Your task to perform on an android device: Search for flights from Sydney to Helsinki Image 0: 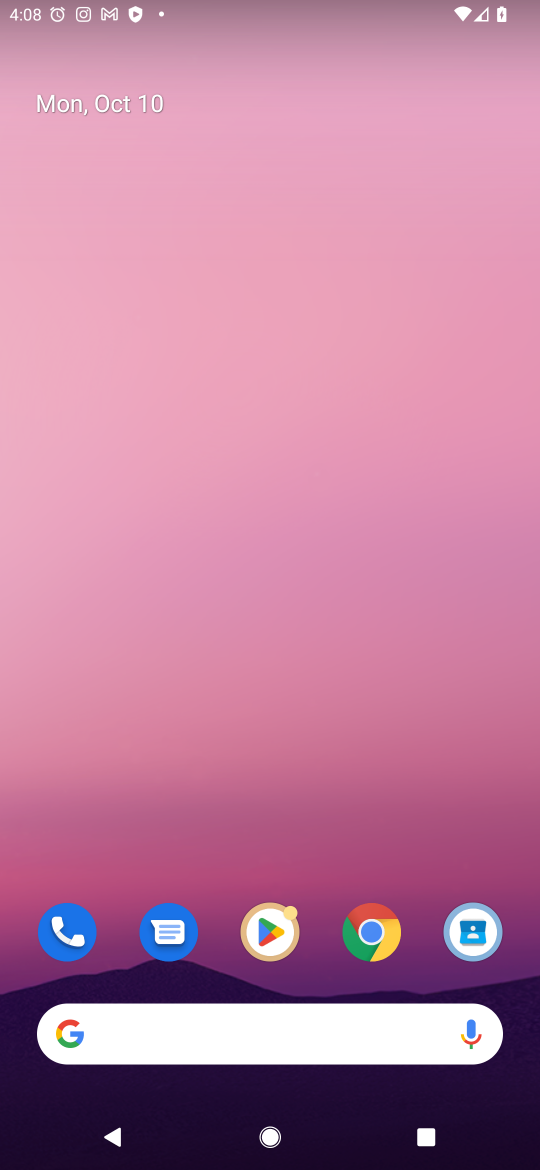
Step 0: press home button
Your task to perform on an android device: Search for flights from Sydney to Helsinki Image 1: 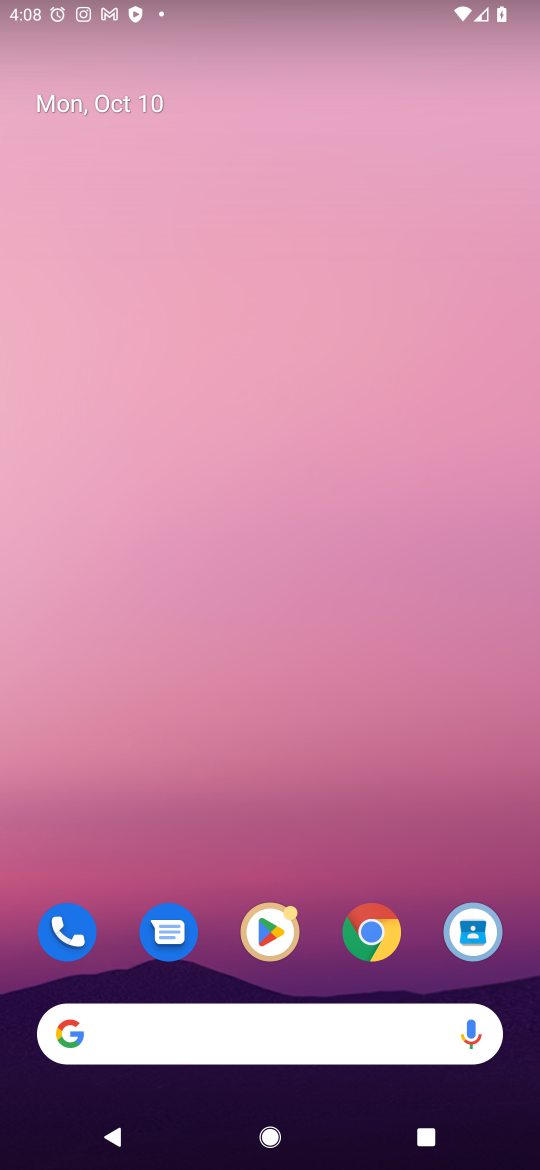
Step 1: click (354, 1034)
Your task to perform on an android device: Search for flights from Sydney to Helsinki Image 2: 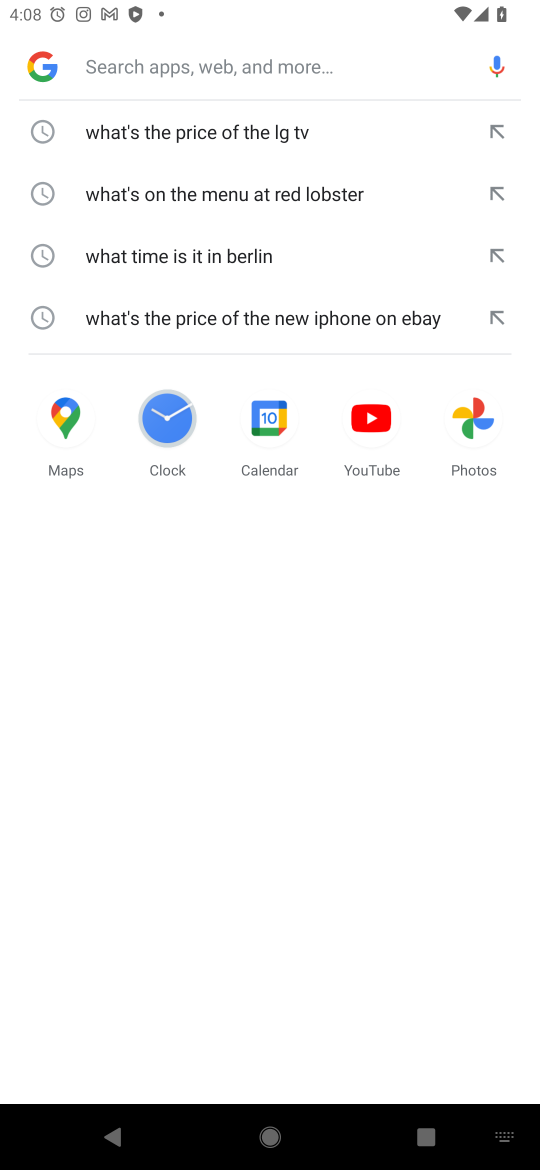
Step 2: type " flights from Sydney to Helsinki"
Your task to perform on an android device: Search for flights from Sydney to Helsinki Image 3: 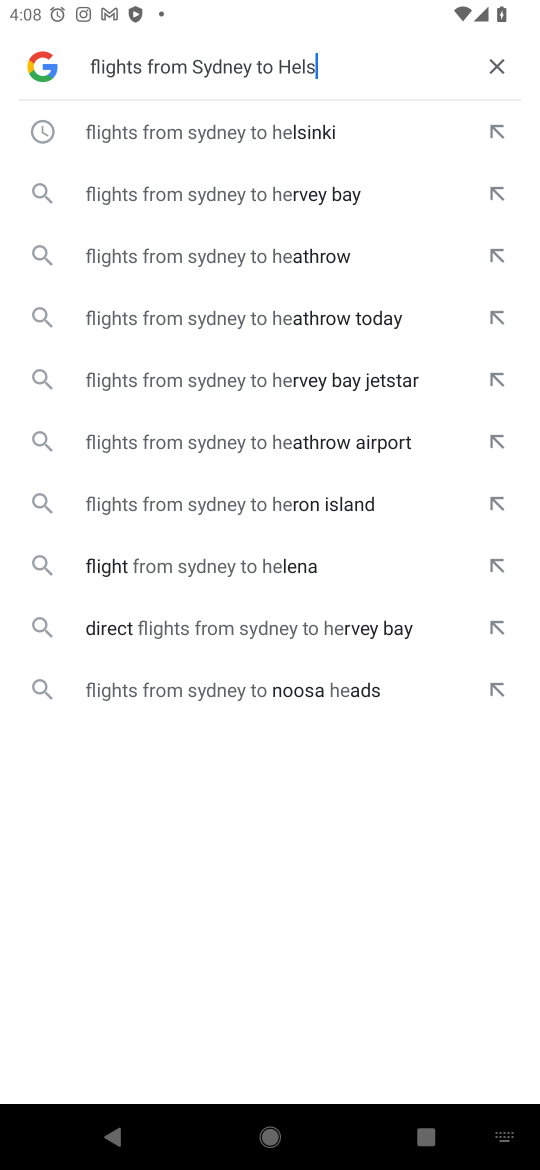
Step 3: press enter
Your task to perform on an android device: Search for flights from Sydney to Helsinki Image 4: 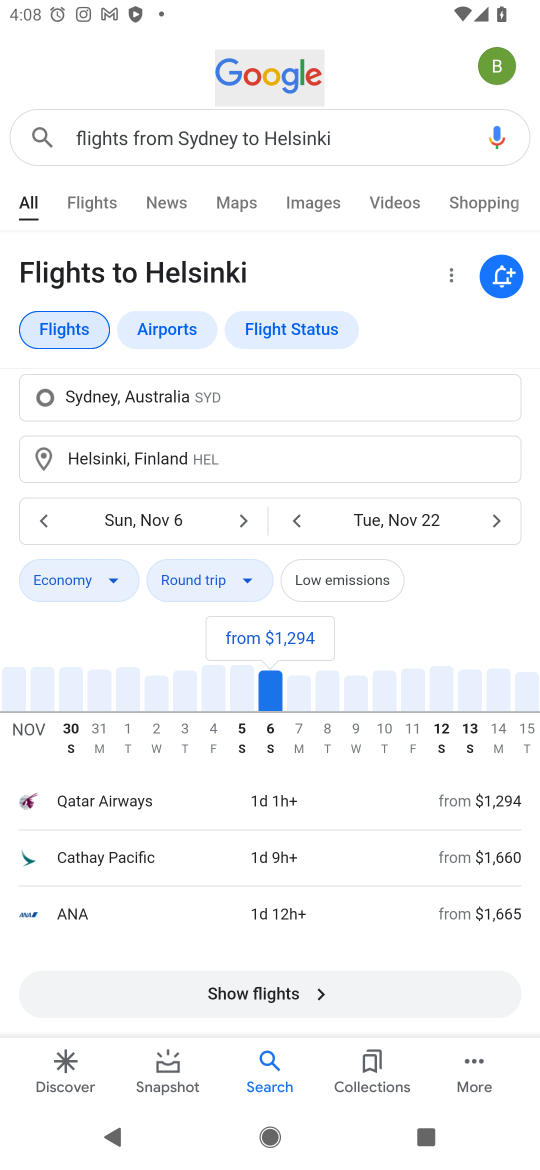
Step 4: click (274, 996)
Your task to perform on an android device: Search for flights from Sydney to Helsinki Image 5: 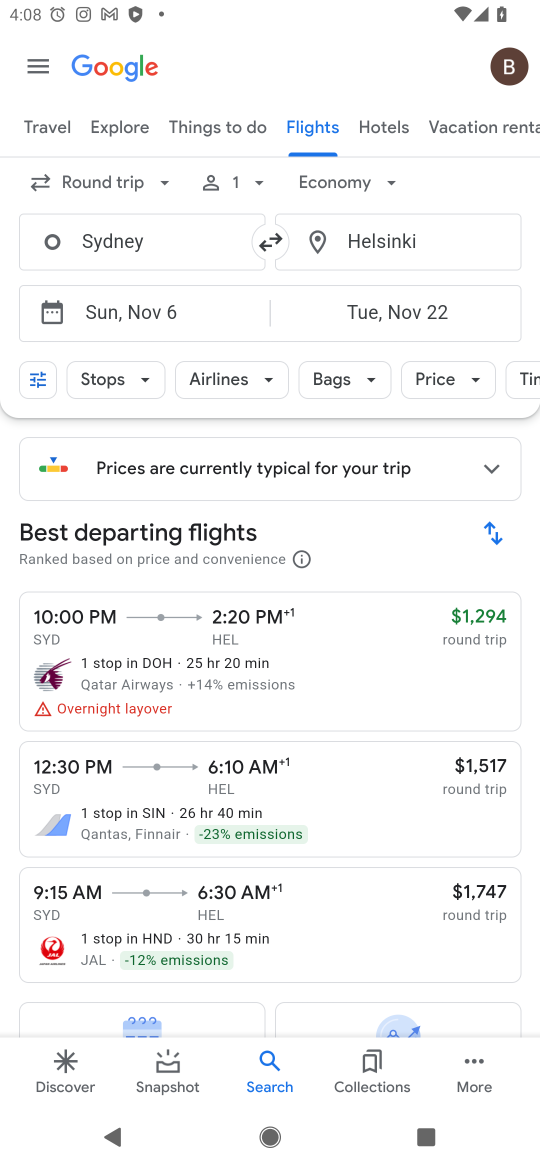
Step 5: task complete